Your task to perform on an android device: turn on data saver in the chrome app Image 0: 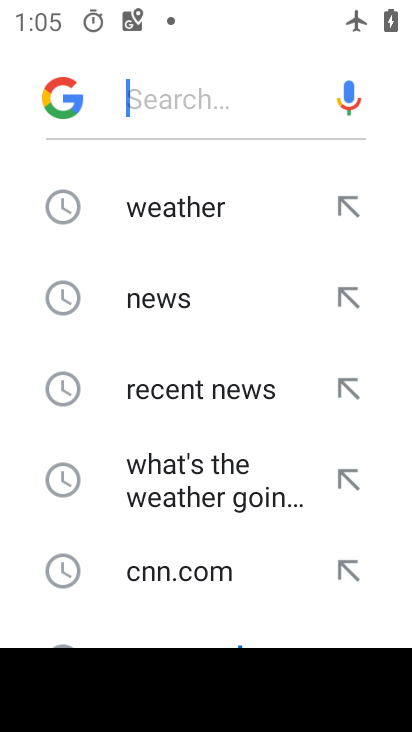
Step 0: press home button
Your task to perform on an android device: turn on data saver in the chrome app Image 1: 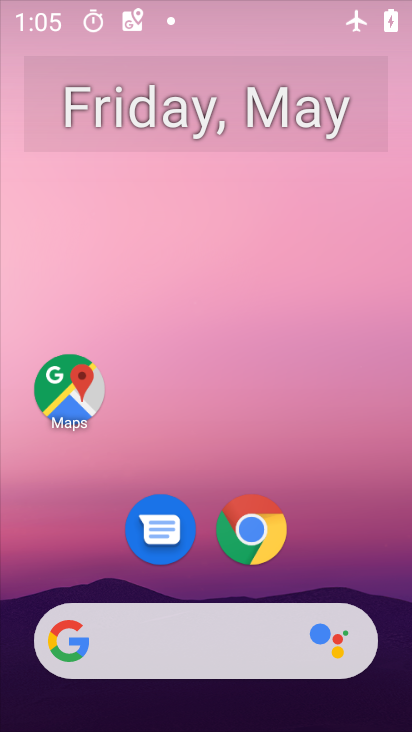
Step 1: drag from (283, 466) to (300, 173)
Your task to perform on an android device: turn on data saver in the chrome app Image 2: 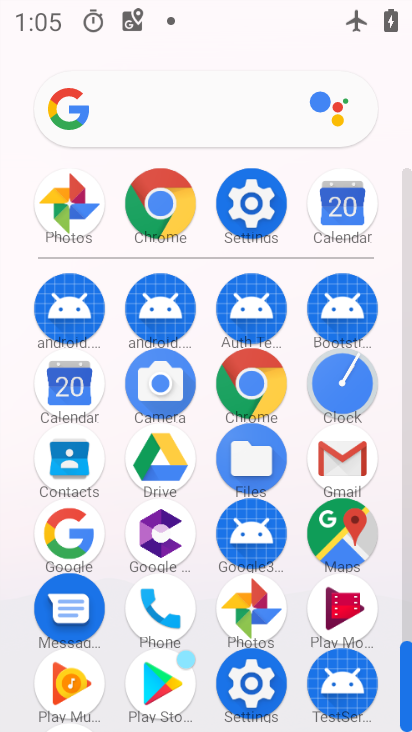
Step 2: click (272, 379)
Your task to perform on an android device: turn on data saver in the chrome app Image 3: 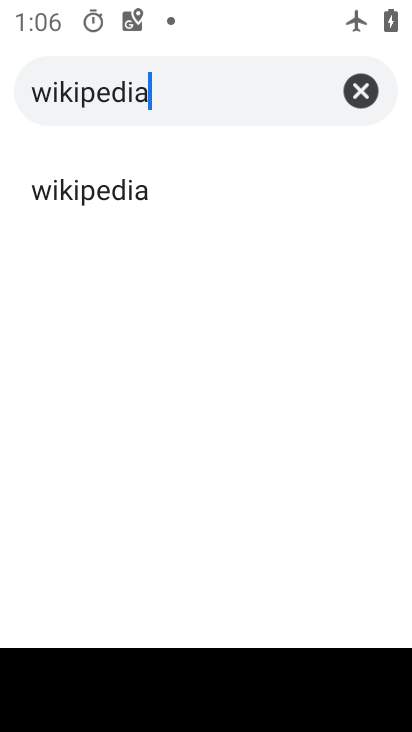
Step 3: press home button
Your task to perform on an android device: turn on data saver in the chrome app Image 4: 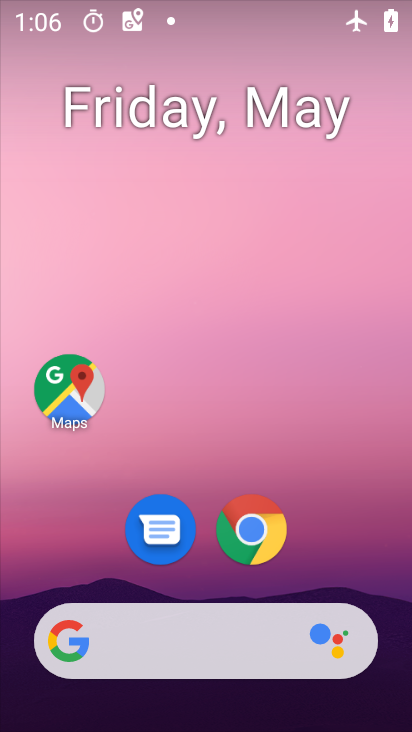
Step 4: click (254, 535)
Your task to perform on an android device: turn on data saver in the chrome app Image 5: 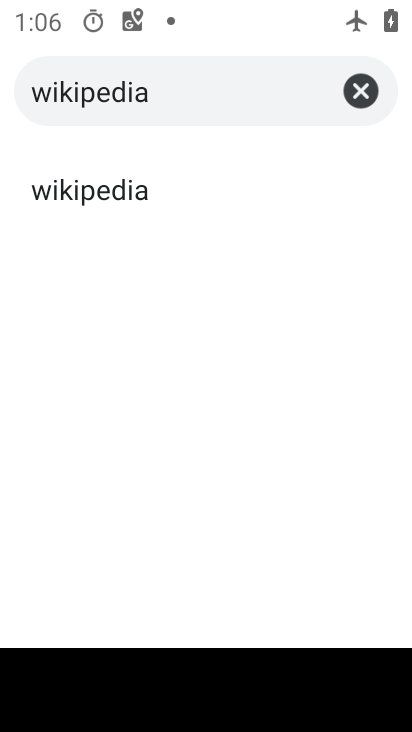
Step 5: press back button
Your task to perform on an android device: turn on data saver in the chrome app Image 6: 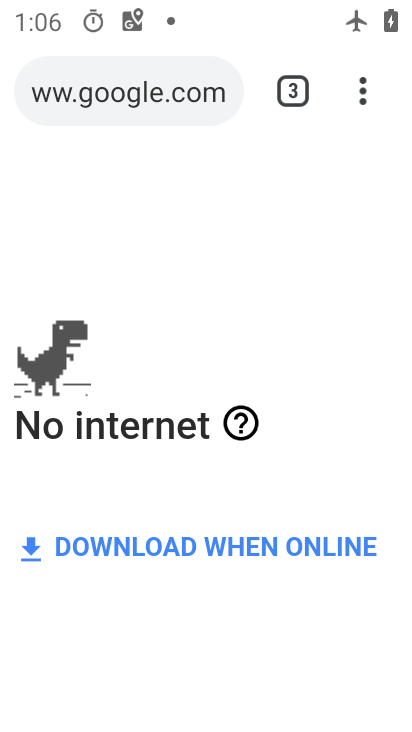
Step 6: click (372, 102)
Your task to perform on an android device: turn on data saver in the chrome app Image 7: 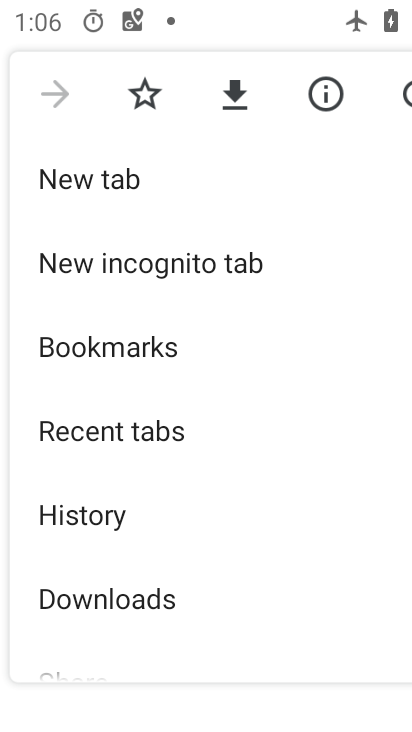
Step 7: drag from (178, 454) to (208, 92)
Your task to perform on an android device: turn on data saver in the chrome app Image 8: 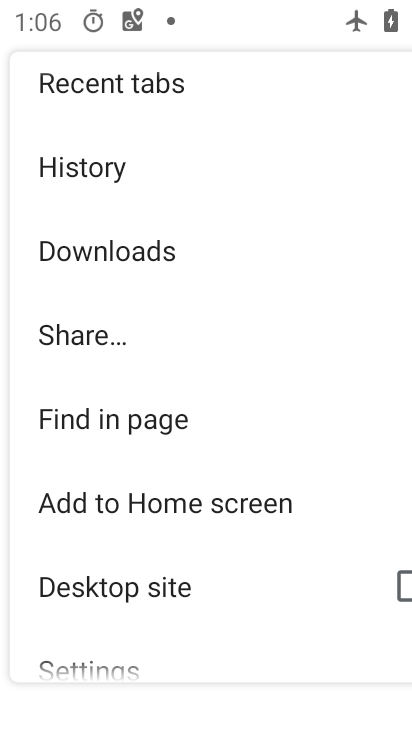
Step 8: drag from (143, 562) to (158, 334)
Your task to perform on an android device: turn on data saver in the chrome app Image 9: 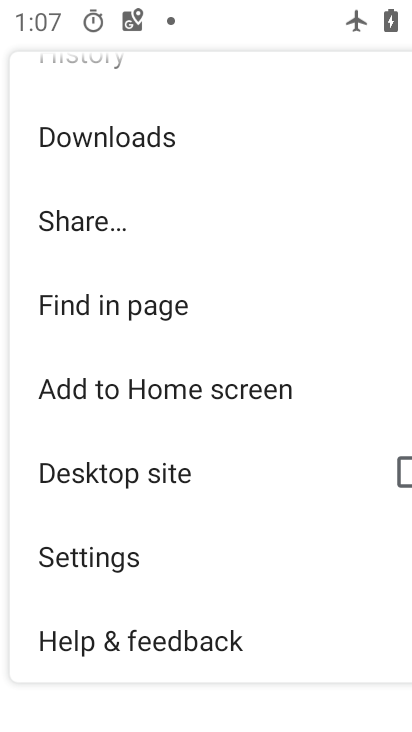
Step 9: click (147, 575)
Your task to perform on an android device: turn on data saver in the chrome app Image 10: 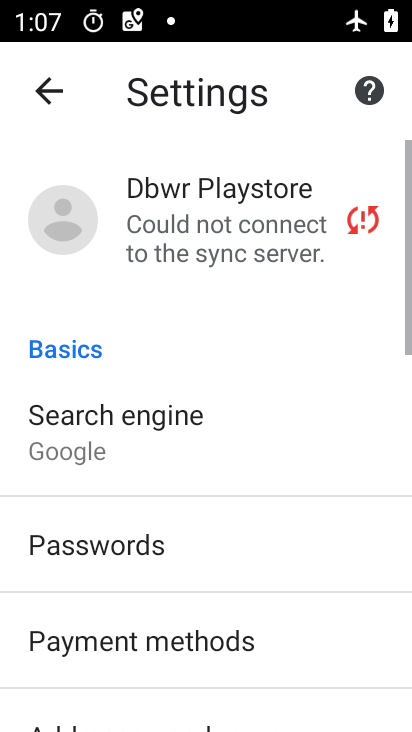
Step 10: drag from (164, 526) to (194, 76)
Your task to perform on an android device: turn on data saver in the chrome app Image 11: 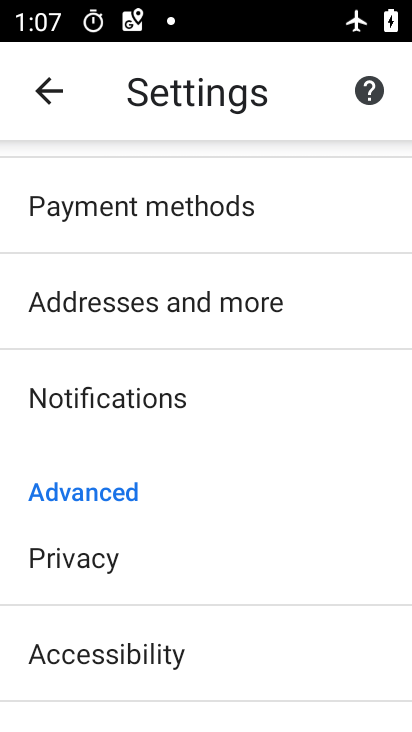
Step 11: drag from (173, 599) to (140, 92)
Your task to perform on an android device: turn on data saver in the chrome app Image 12: 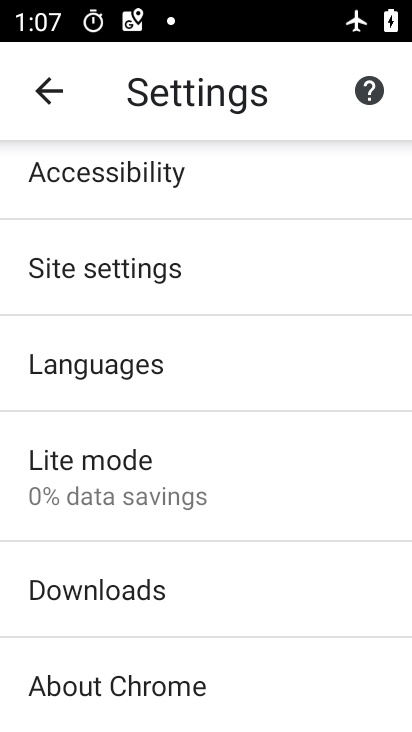
Step 12: click (157, 496)
Your task to perform on an android device: turn on data saver in the chrome app Image 13: 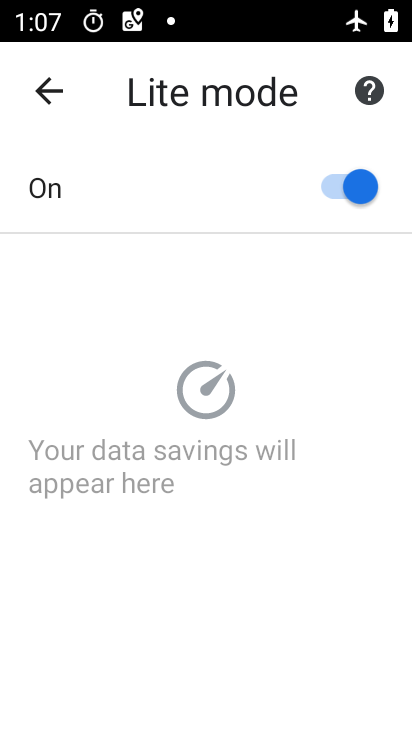
Step 13: task complete